Your task to perform on an android device: Open Google Image 0: 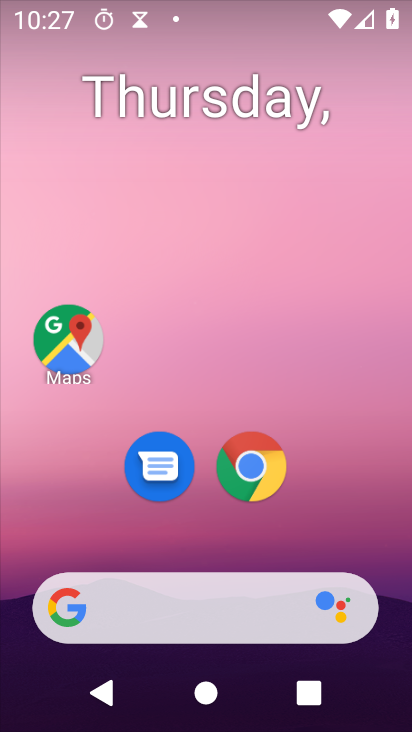
Step 0: drag from (204, 573) to (395, 37)
Your task to perform on an android device: Open Google Image 1: 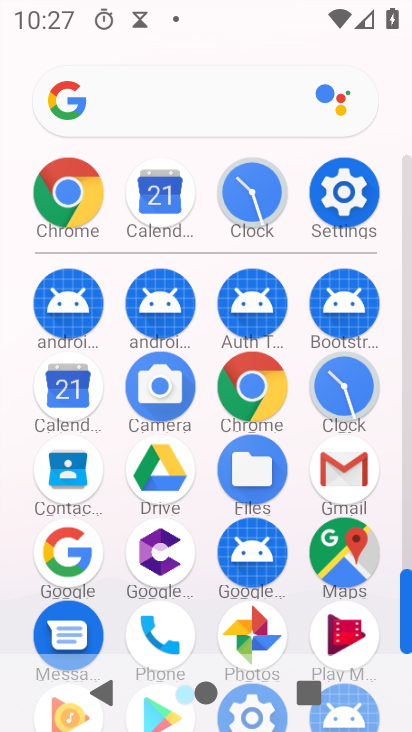
Step 1: click (63, 544)
Your task to perform on an android device: Open Google Image 2: 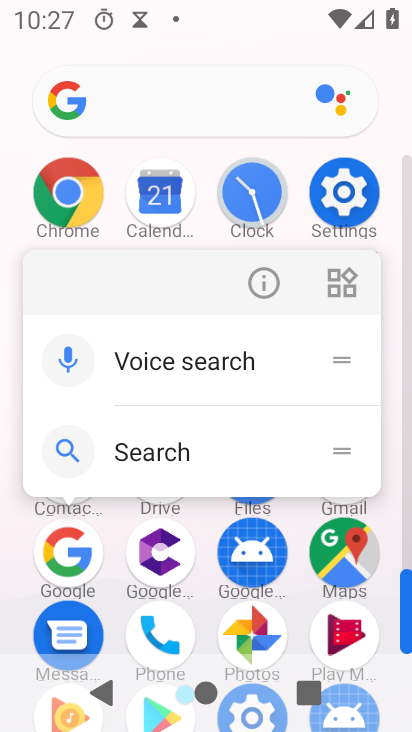
Step 2: click (71, 563)
Your task to perform on an android device: Open Google Image 3: 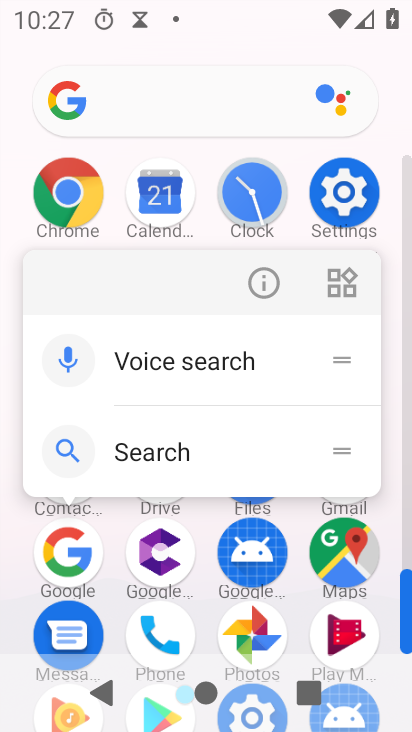
Step 3: click (72, 559)
Your task to perform on an android device: Open Google Image 4: 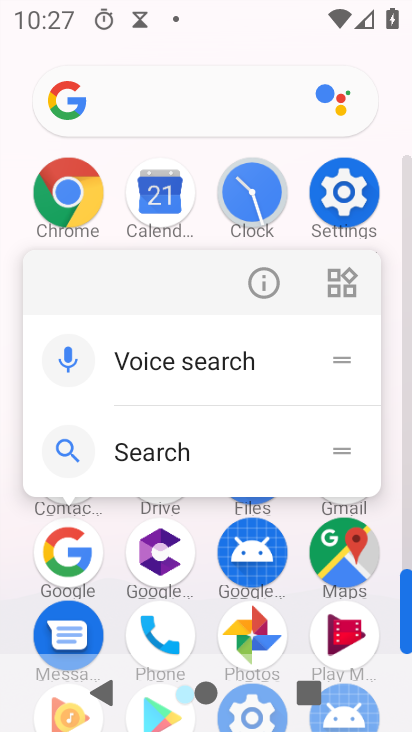
Step 4: click (56, 538)
Your task to perform on an android device: Open Google Image 5: 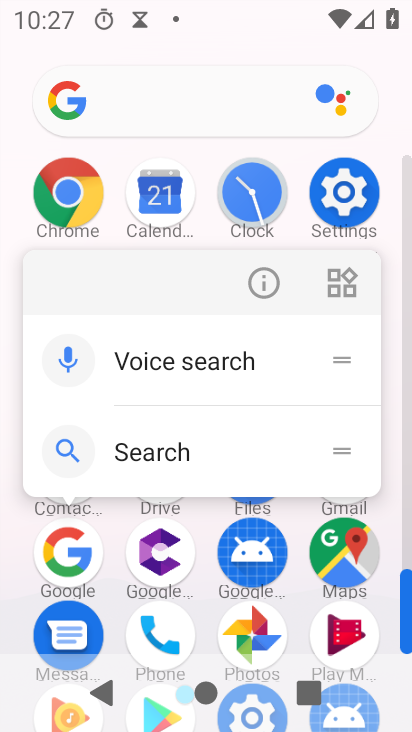
Step 5: click (50, 561)
Your task to perform on an android device: Open Google Image 6: 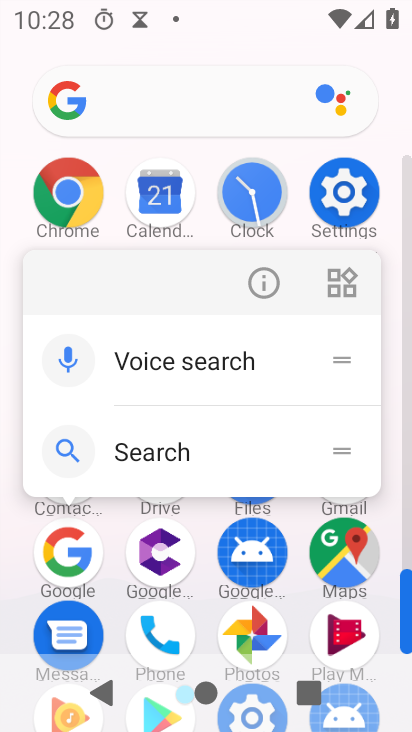
Step 6: click (56, 554)
Your task to perform on an android device: Open Google Image 7: 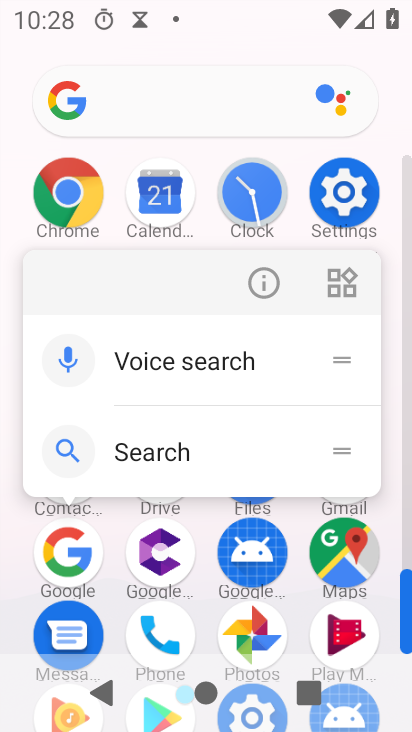
Step 7: click (73, 560)
Your task to perform on an android device: Open Google Image 8: 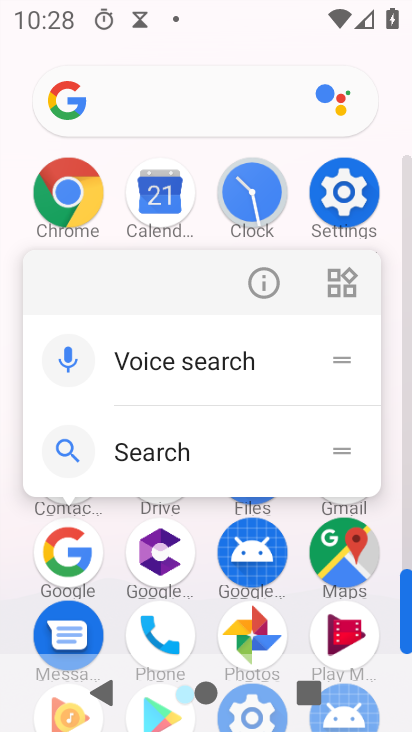
Step 8: click (61, 556)
Your task to perform on an android device: Open Google Image 9: 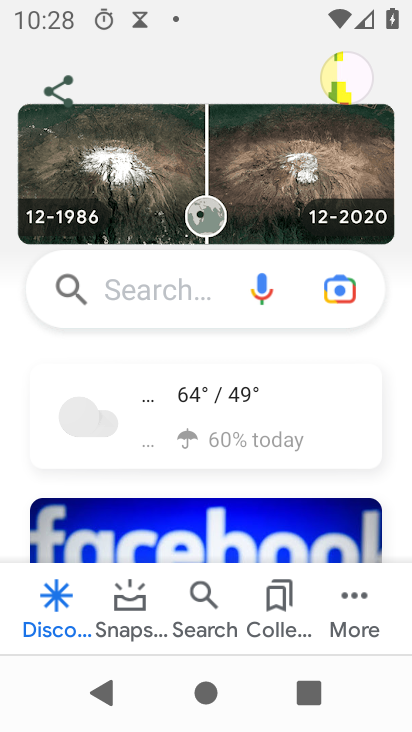
Step 9: task complete